Your task to perform on an android device: When is my next appointment? Image 0: 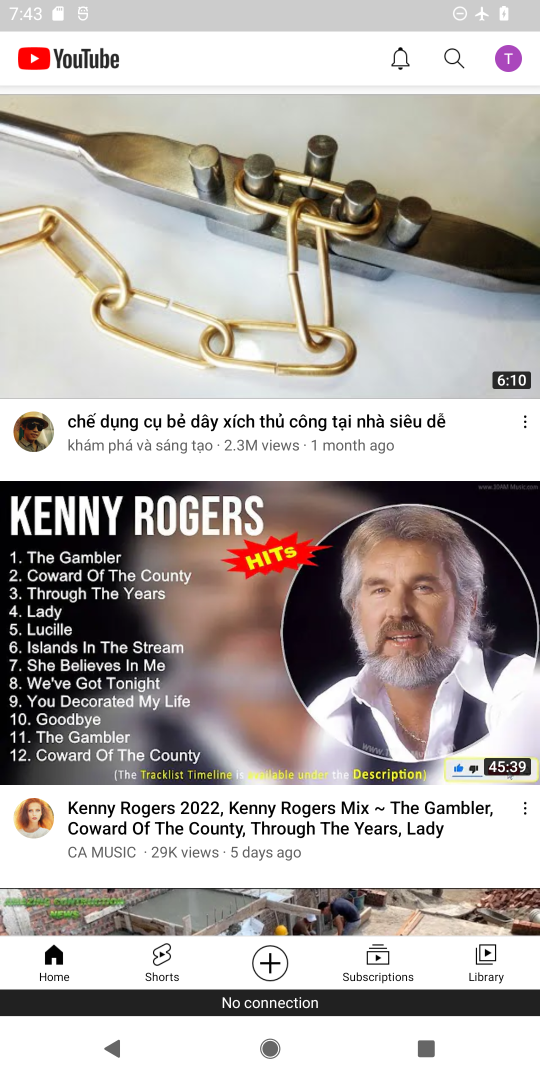
Step 0: press home button
Your task to perform on an android device: When is my next appointment? Image 1: 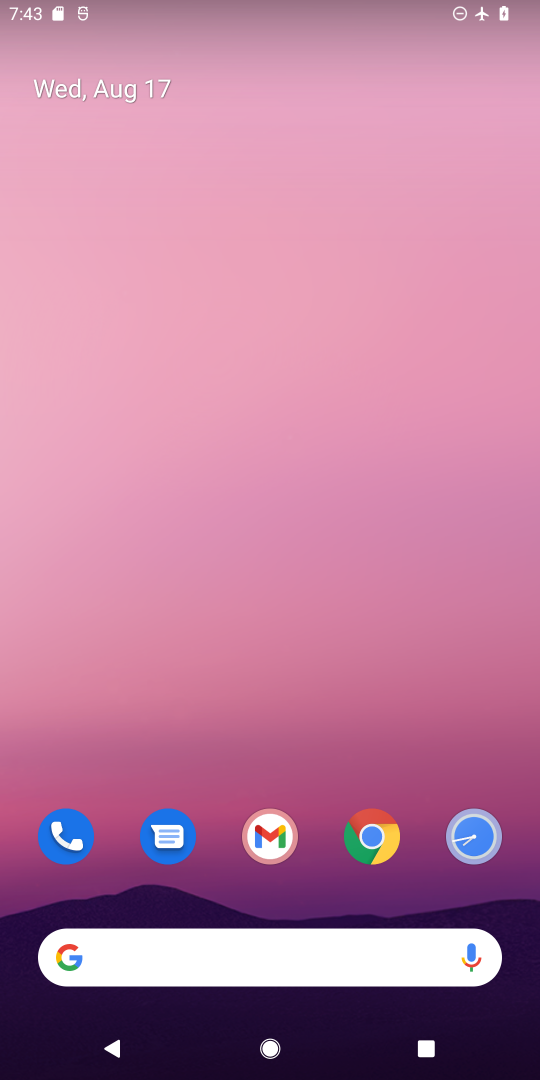
Step 1: drag from (306, 805) to (306, 230)
Your task to perform on an android device: When is my next appointment? Image 2: 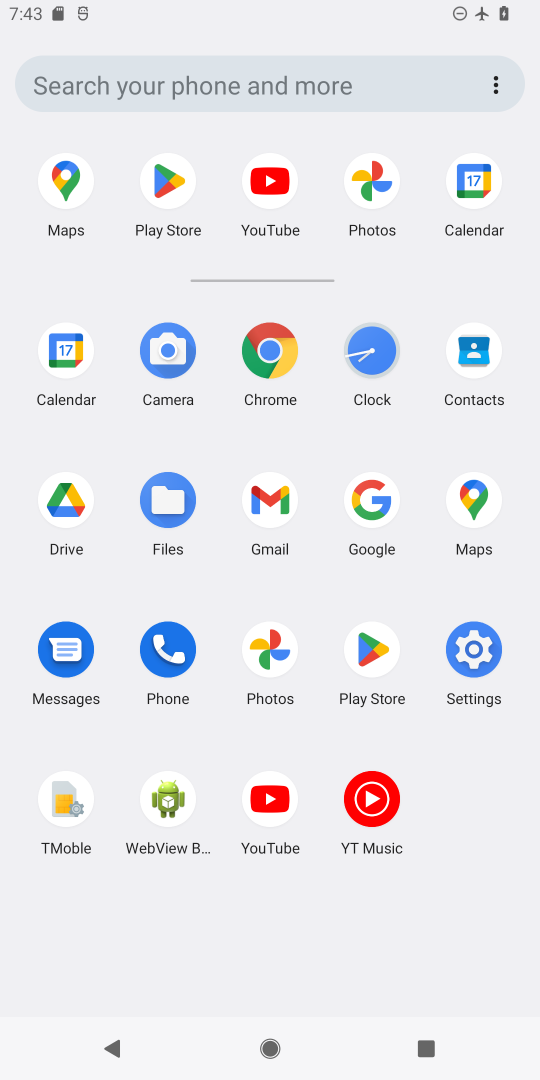
Step 2: click (471, 185)
Your task to perform on an android device: When is my next appointment? Image 3: 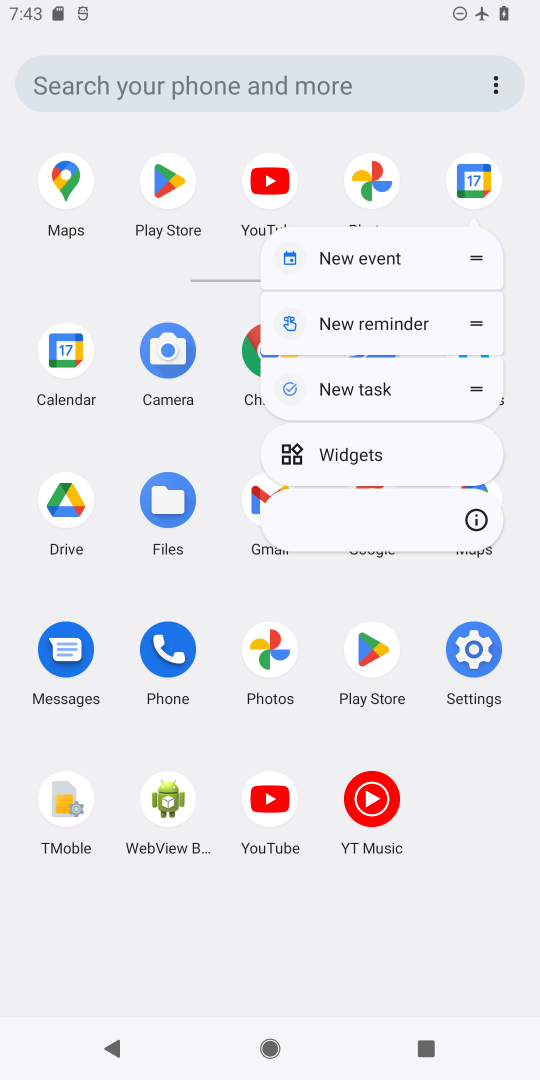
Step 3: click (469, 185)
Your task to perform on an android device: When is my next appointment? Image 4: 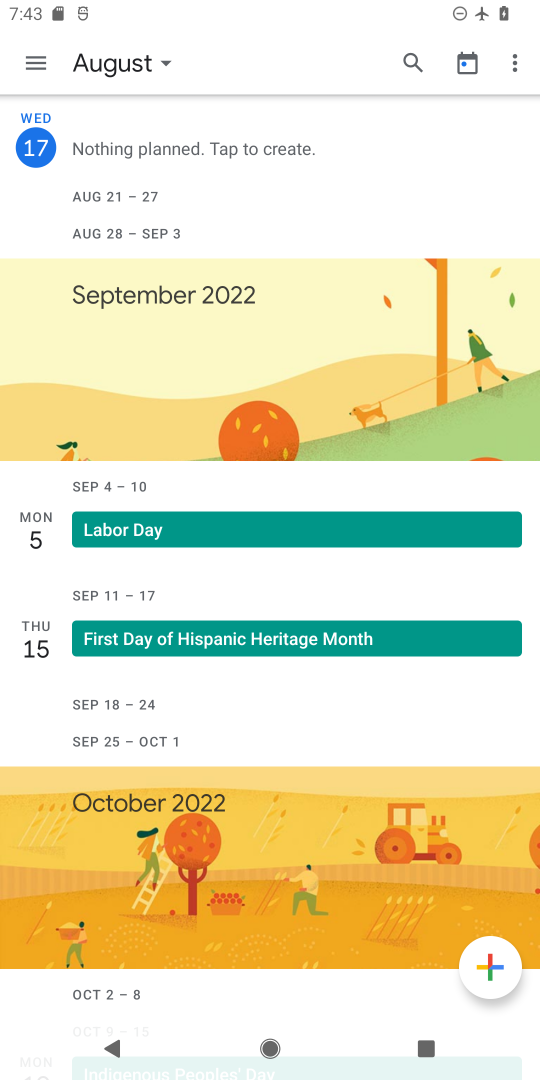
Step 4: click (26, 51)
Your task to perform on an android device: When is my next appointment? Image 5: 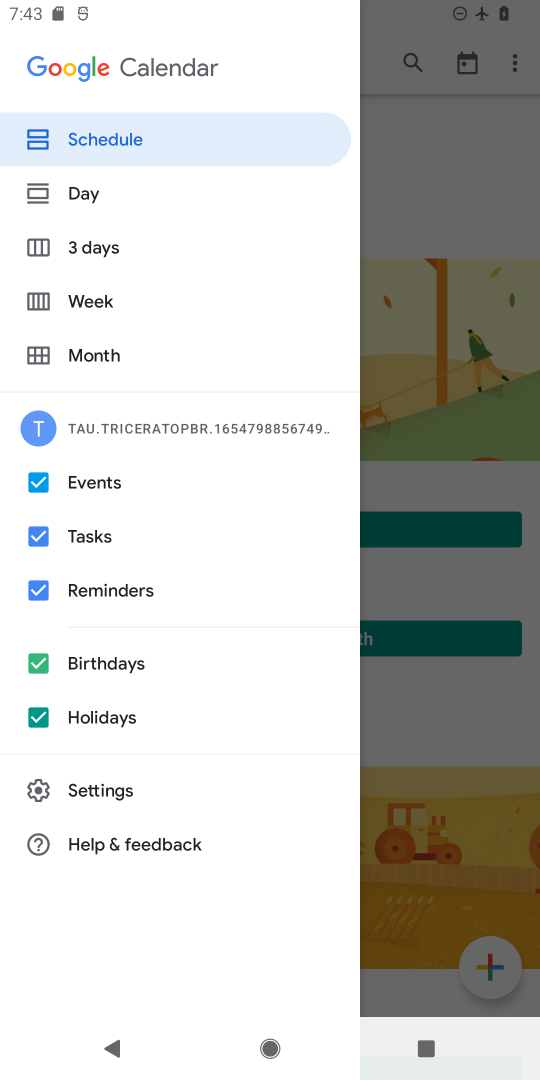
Step 5: click (109, 307)
Your task to perform on an android device: When is my next appointment? Image 6: 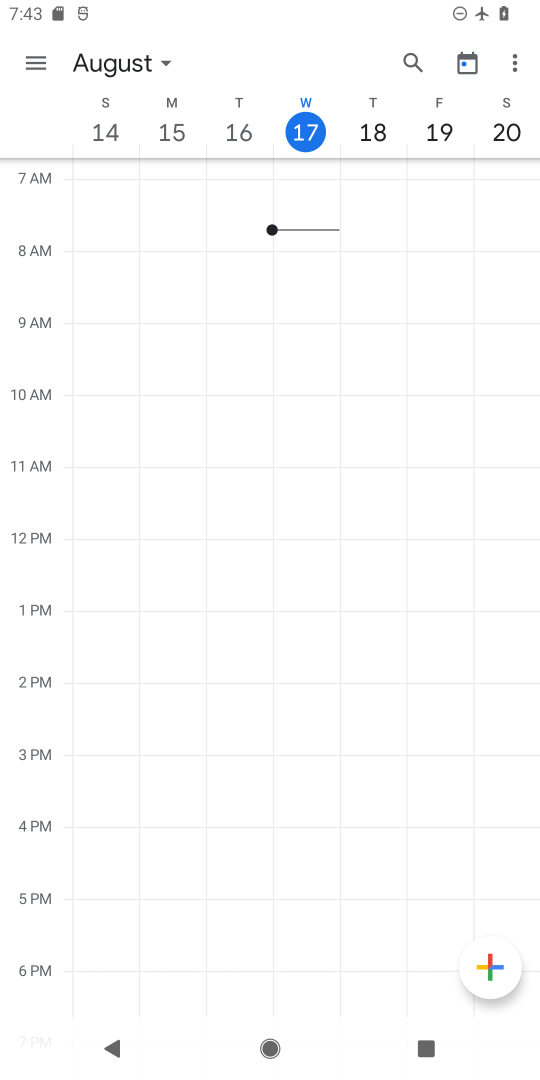
Step 6: click (384, 124)
Your task to perform on an android device: When is my next appointment? Image 7: 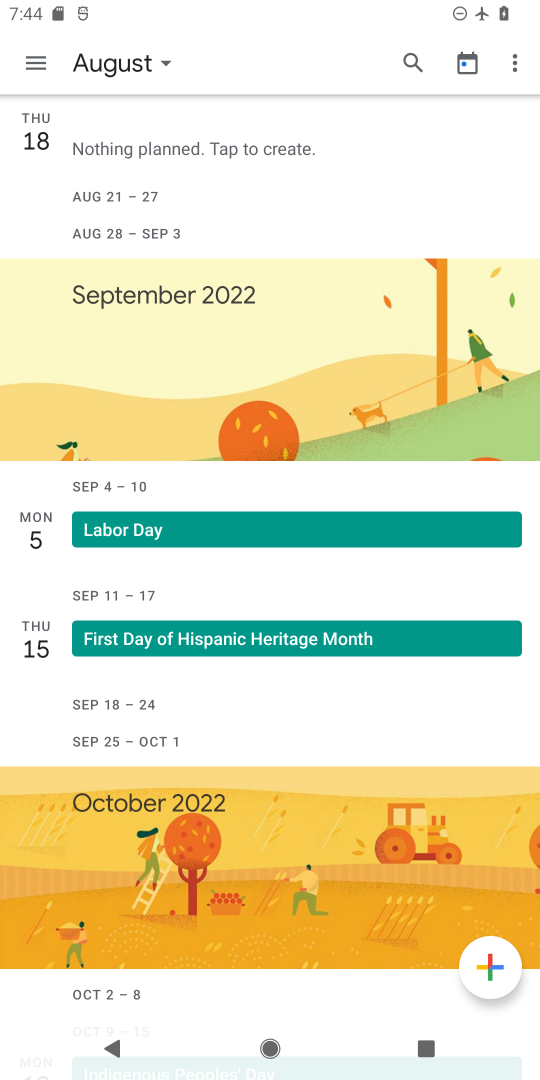
Step 7: task complete